Your task to perform on an android device: Open Google Chrome and open the bookmarks view Image 0: 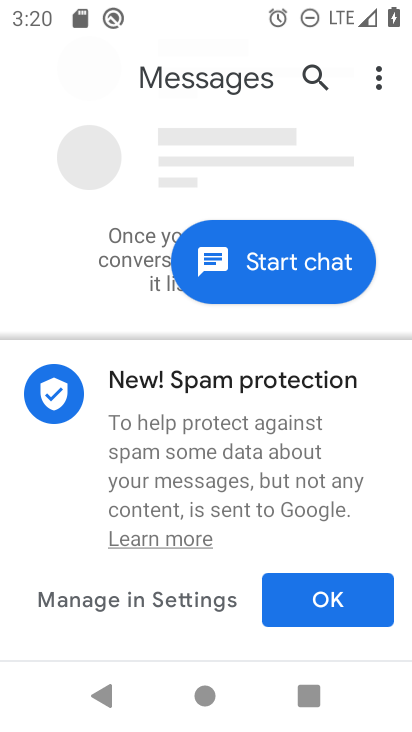
Step 0: press home button
Your task to perform on an android device: Open Google Chrome and open the bookmarks view Image 1: 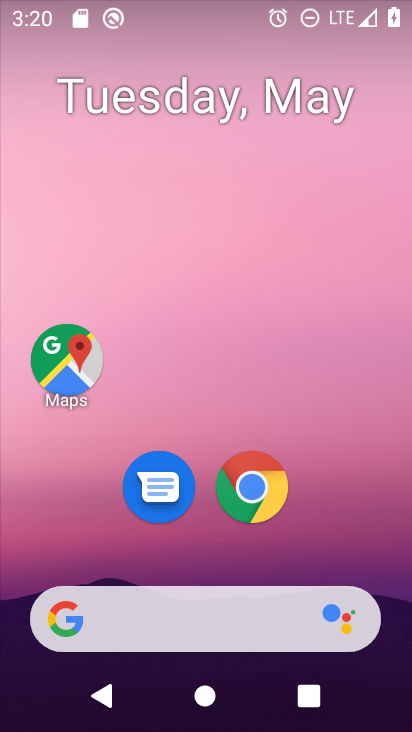
Step 1: click (256, 475)
Your task to perform on an android device: Open Google Chrome and open the bookmarks view Image 2: 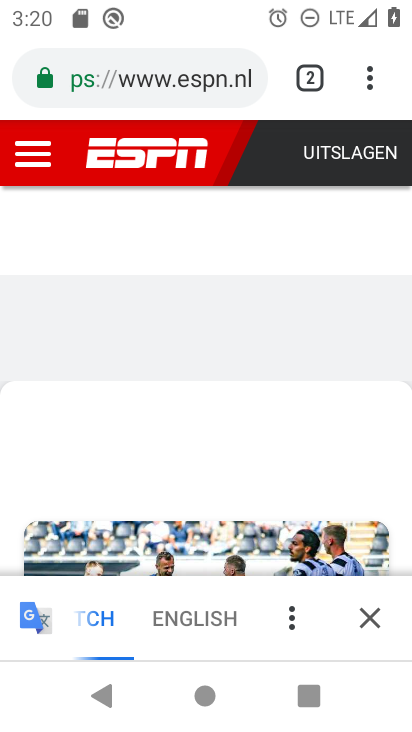
Step 2: click (372, 80)
Your task to perform on an android device: Open Google Chrome and open the bookmarks view Image 3: 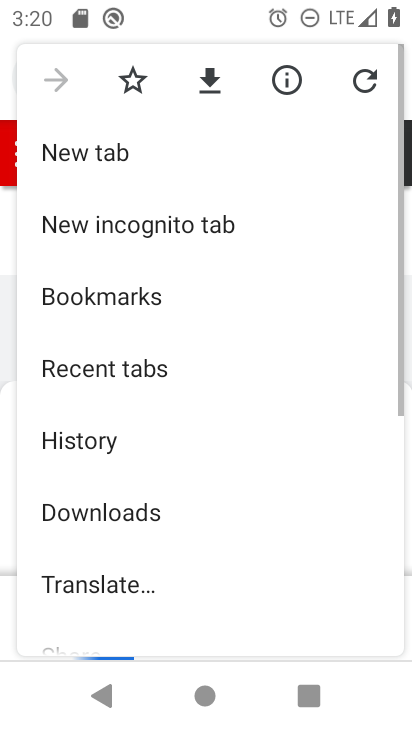
Step 3: click (155, 277)
Your task to perform on an android device: Open Google Chrome and open the bookmarks view Image 4: 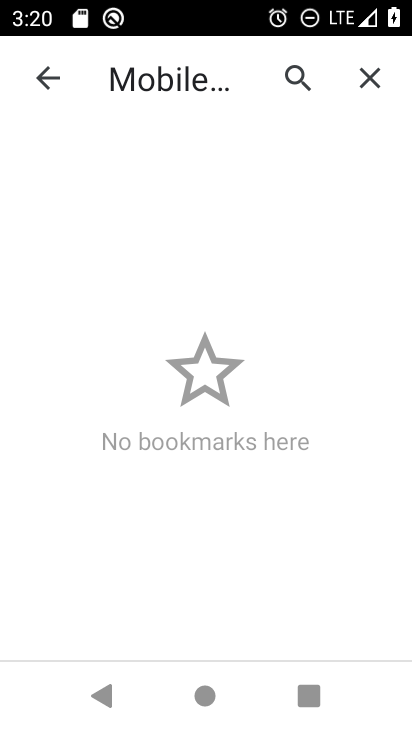
Step 4: task complete